Your task to perform on an android device: empty trash in google photos Image 0: 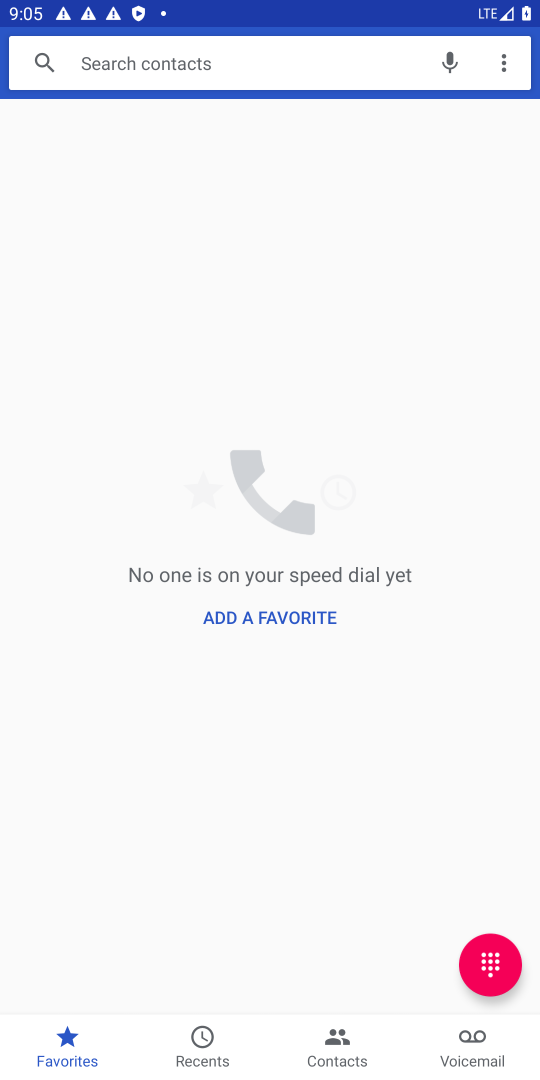
Step 0: press home button
Your task to perform on an android device: empty trash in google photos Image 1: 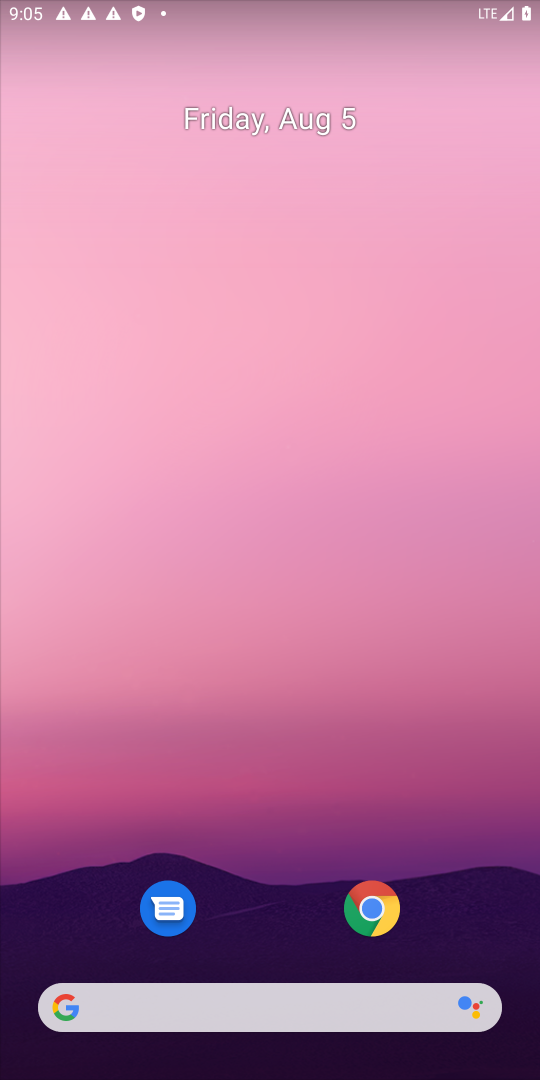
Step 1: drag from (278, 785) to (270, 172)
Your task to perform on an android device: empty trash in google photos Image 2: 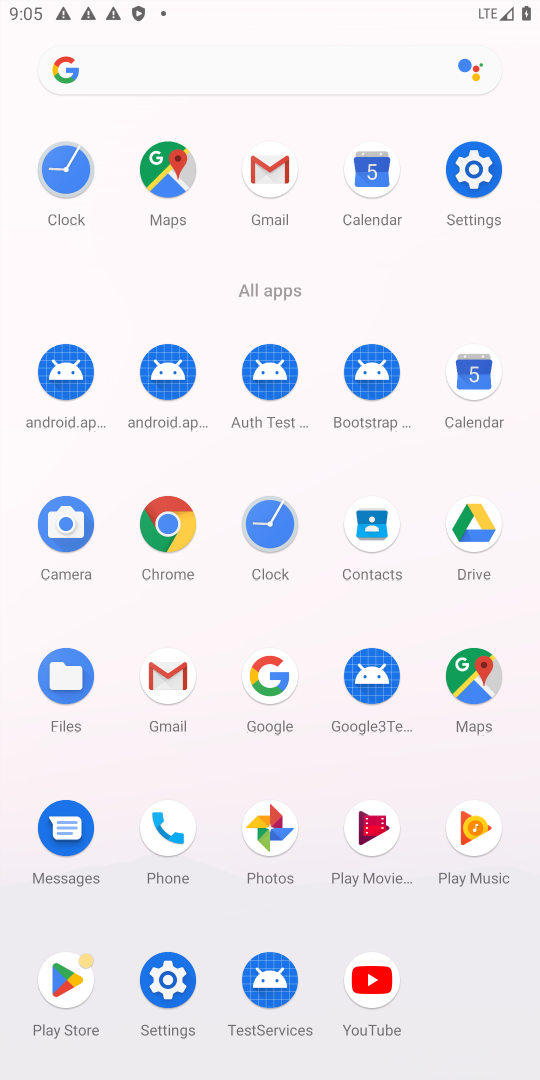
Step 2: click (280, 827)
Your task to perform on an android device: empty trash in google photos Image 3: 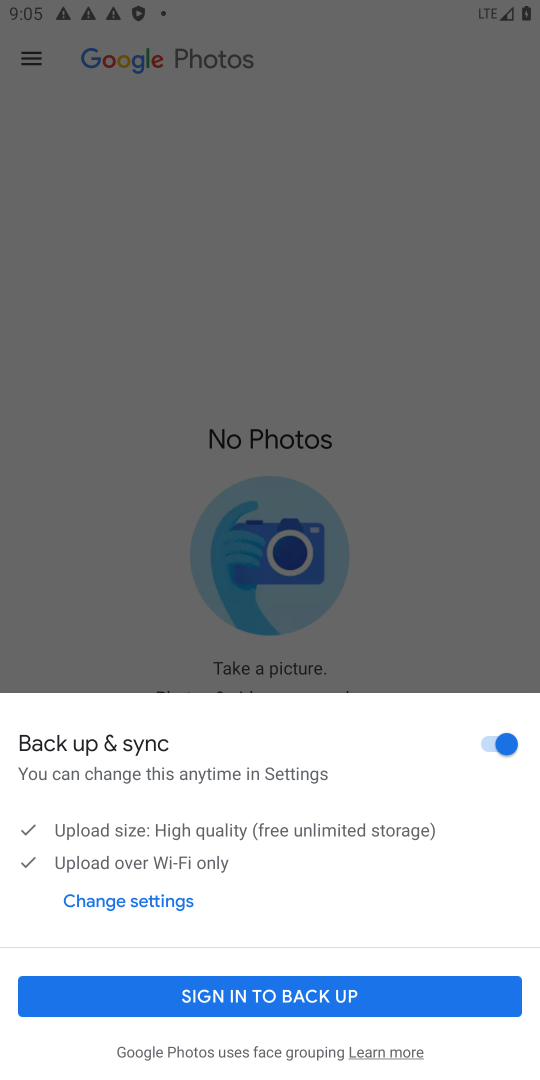
Step 3: click (298, 1006)
Your task to perform on an android device: empty trash in google photos Image 4: 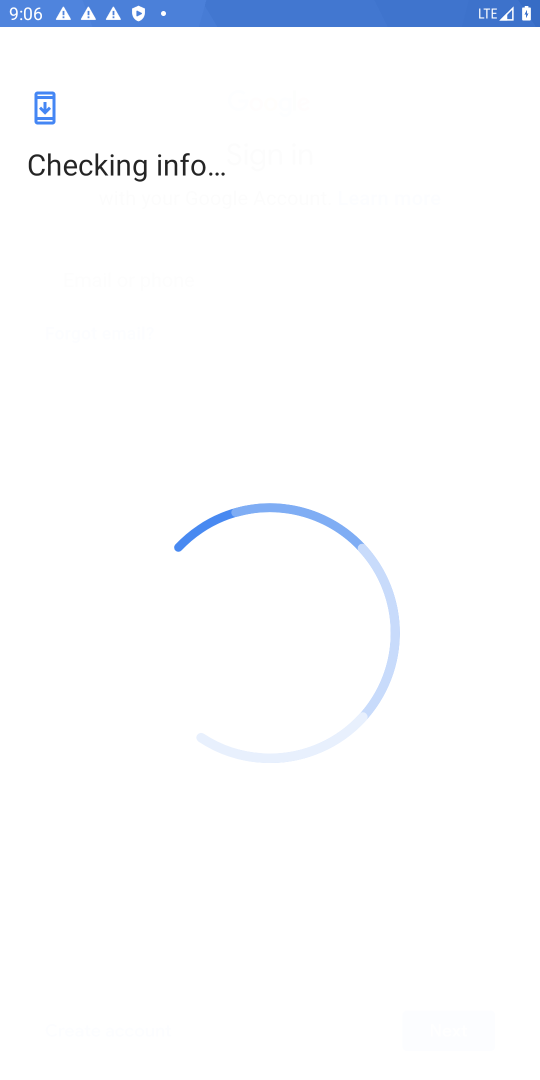
Step 4: task complete